Your task to perform on an android device: Open battery settings Image 0: 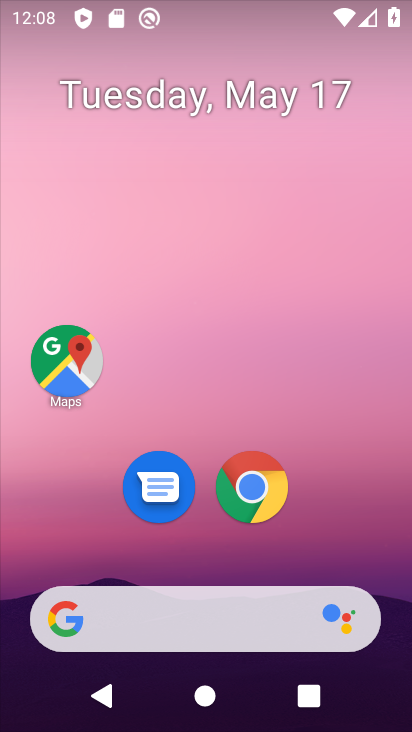
Step 0: drag from (347, 267) to (286, 0)
Your task to perform on an android device: Open battery settings Image 1: 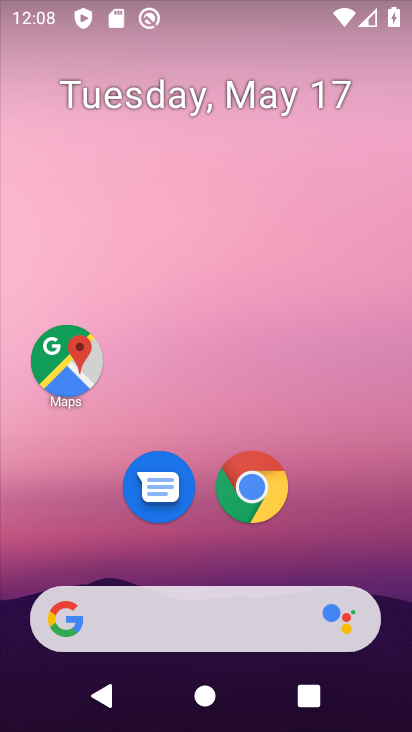
Step 1: drag from (25, 602) to (7, 36)
Your task to perform on an android device: Open battery settings Image 2: 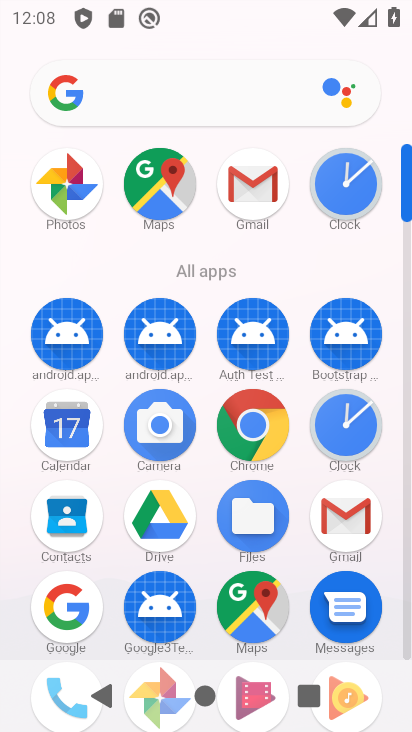
Step 2: drag from (6, 571) to (2, 344)
Your task to perform on an android device: Open battery settings Image 3: 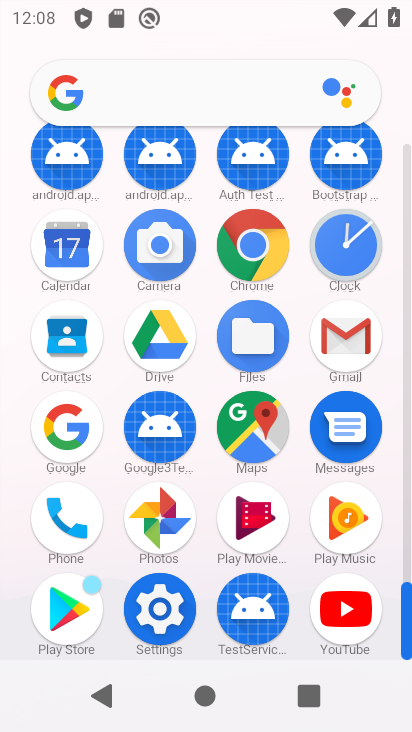
Step 3: drag from (17, 621) to (10, 326)
Your task to perform on an android device: Open battery settings Image 4: 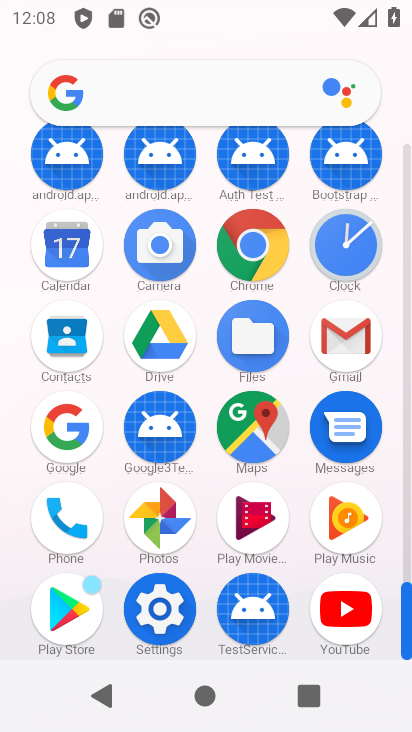
Step 4: click (159, 604)
Your task to perform on an android device: Open battery settings Image 5: 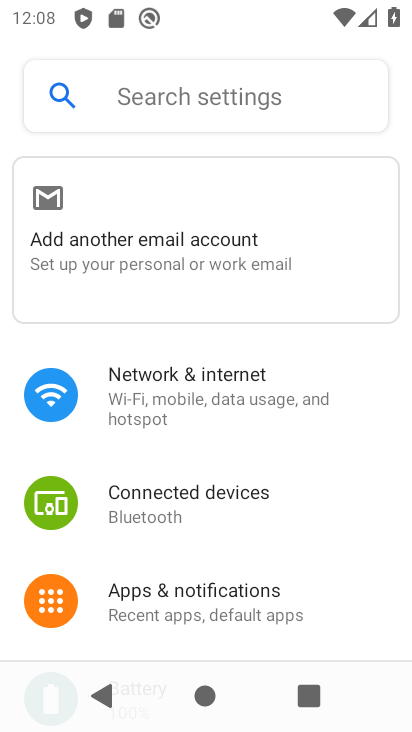
Step 5: drag from (343, 517) to (328, 135)
Your task to perform on an android device: Open battery settings Image 6: 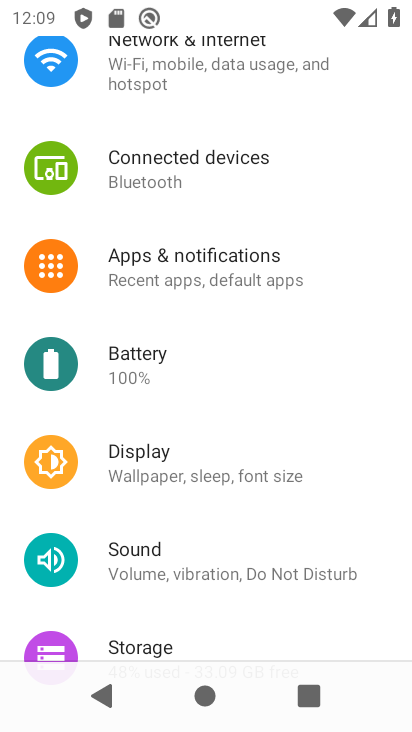
Step 6: click (168, 367)
Your task to perform on an android device: Open battery settings Image 7: 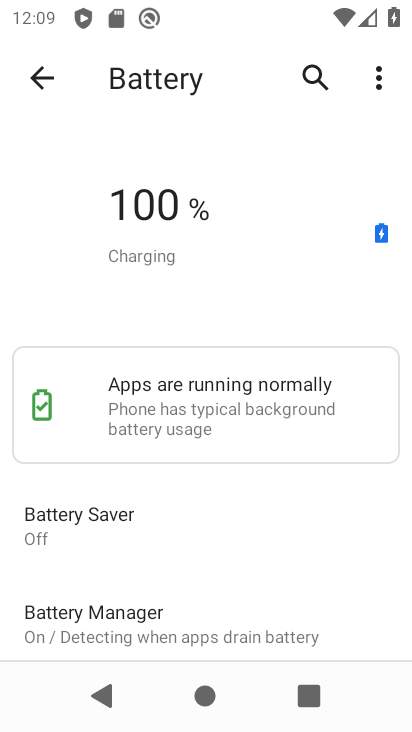
Step 7: task complete